Your task to perform on an android device: visit the assistant section in the google photos Image 0: 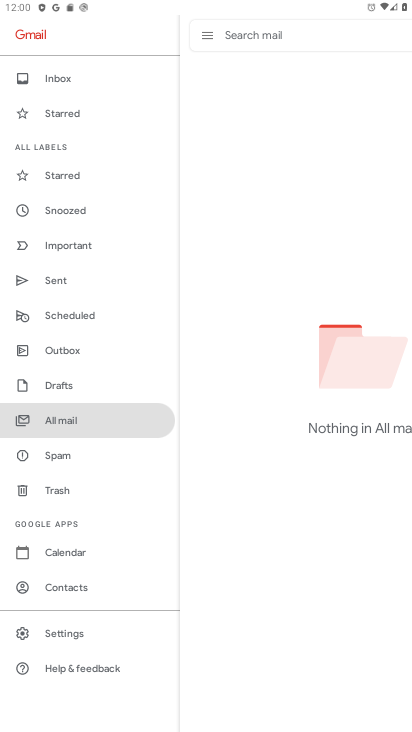
Step 0: press home button
Your task to perform on an android device: visit the assistant section in the google photos Image 1: 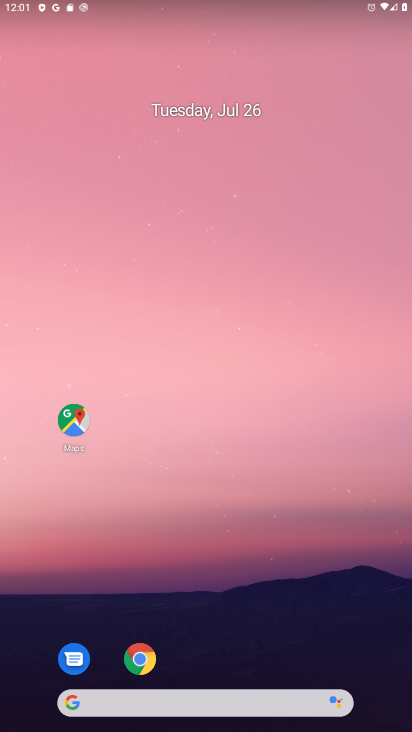
Step 1: drag from (219, 596) to (127, 136)
Your task to perform on an android device: visit the assistant section in the google photos Image 2: 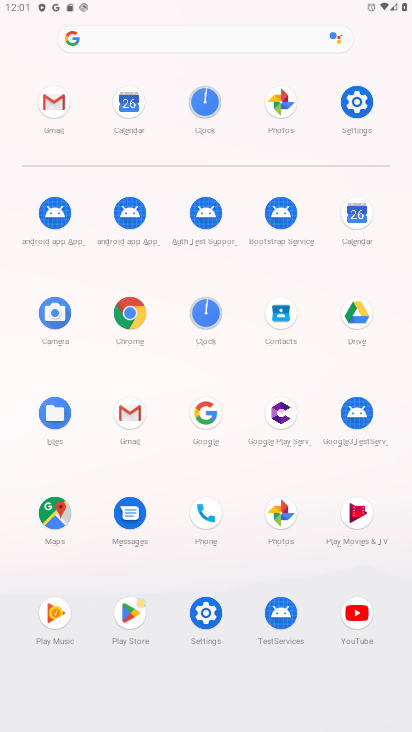
Step 2: click (282, 513)
Your task to perform on an android device: visit the assistant section in the google photos Image 3: 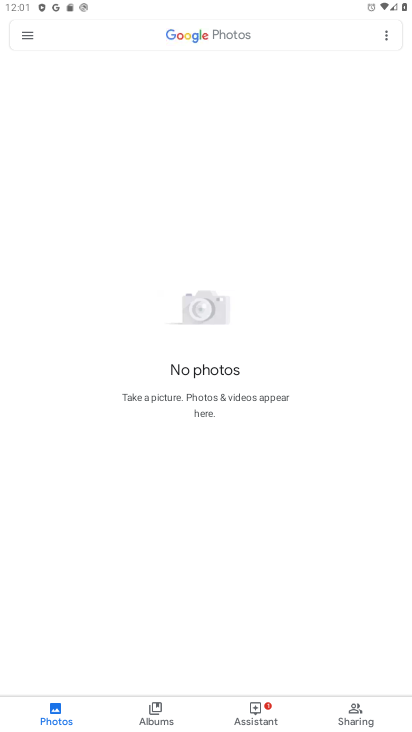
Step 3: click (258, 714)
Your task to perform on an android device: visit the assistant section in the google photos Image 4: 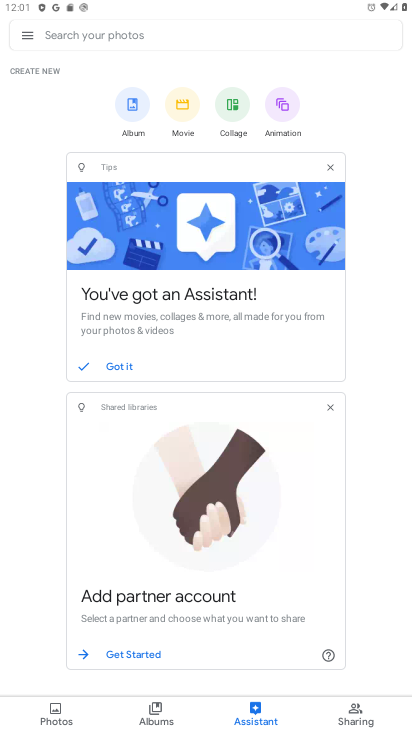
Step 4: task complete